Your task to perform on an android device: check the backup settings in the google photos Image 0: 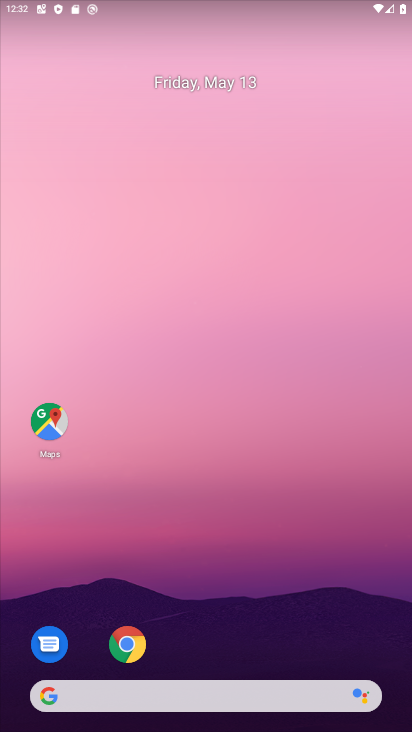
Step 0: drag from (279, 633) to (268, 81)
Your task to perform on an android device: check the backup settings in the google photos Image 1: 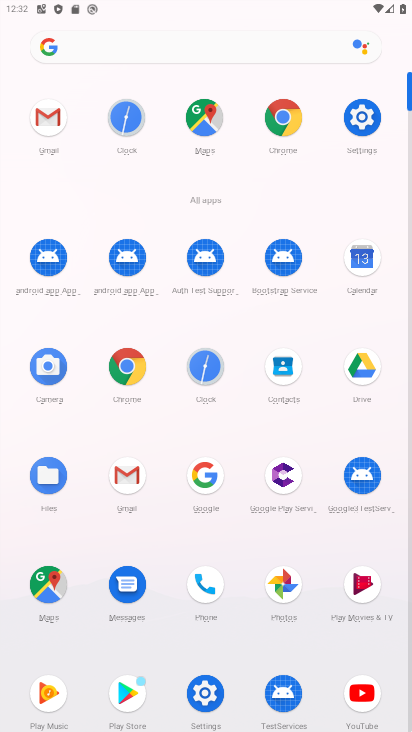
Step 1: click (286, 574)
Your task to perform on an android device: check the backup settings in the google photos Image 2: 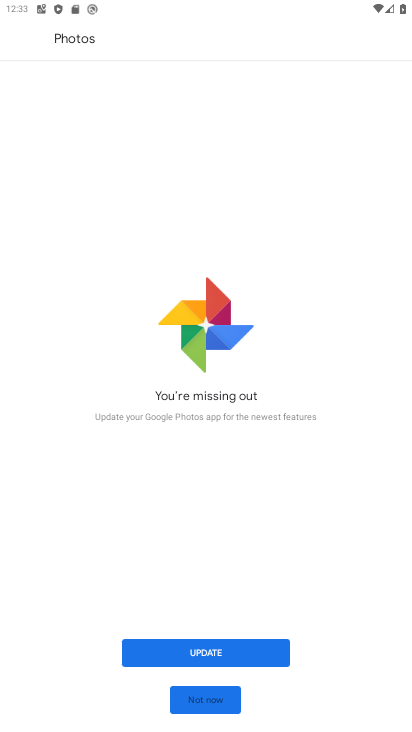
Step 2: click (217, 651)
Your task to perform on an android device: check the backup settings in the google photos Image 3: 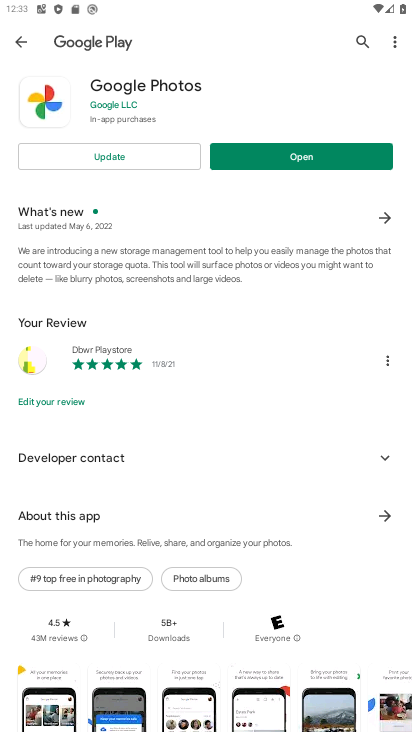
Step 3: click (265, 153)
Your task to perform on an android device: check the backup settings in the google photos Image 4: 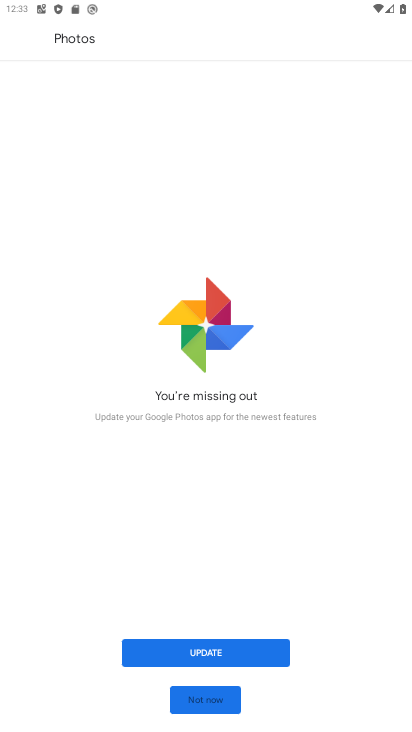
Step 4: click (202, 644)
Your task to perform on an android device: check the backup settings in the google photos Image 5: 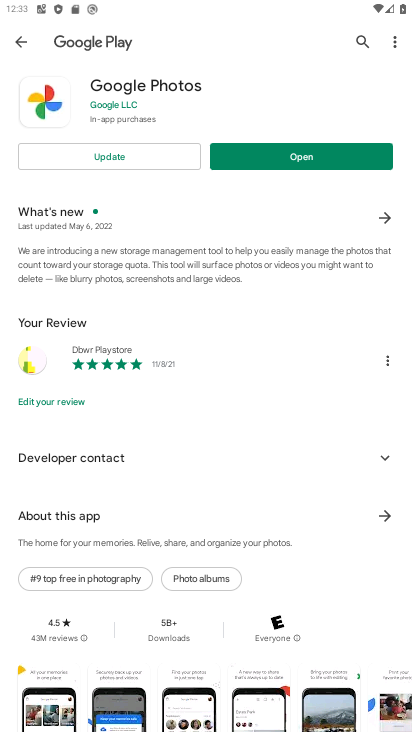
Step 5: click (155, 152)
Your task to perform on an android device: check the backup settings in the google photos Image 6: 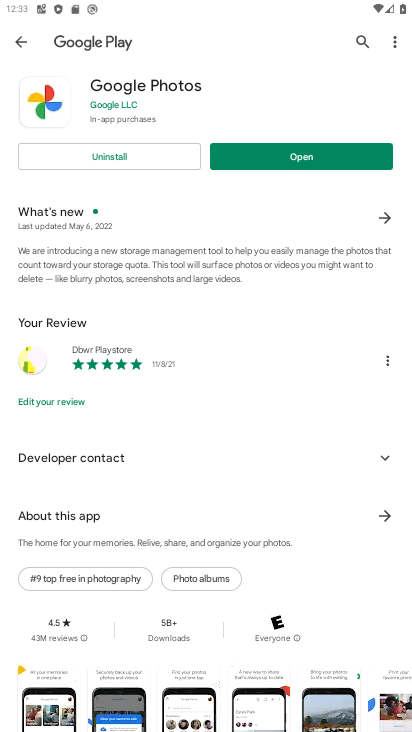
Step 6: click (262, 166)
Your task to perform on an android device: check the backup settings in the google photos Image 7: 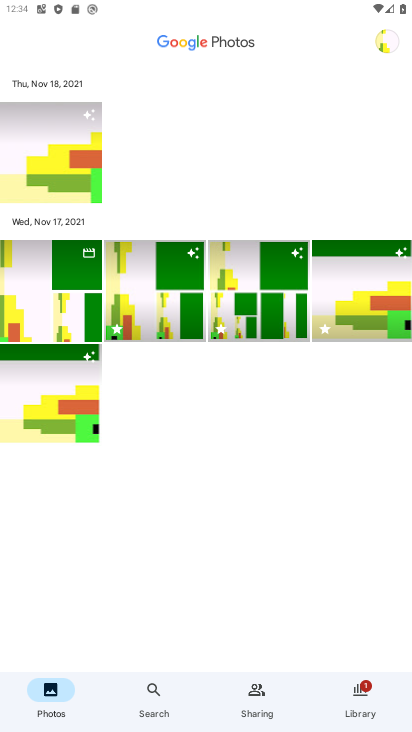
Step 7: click (384, 34)
Your task to perform on an android device: check the backup settings in the google photos Image 8: 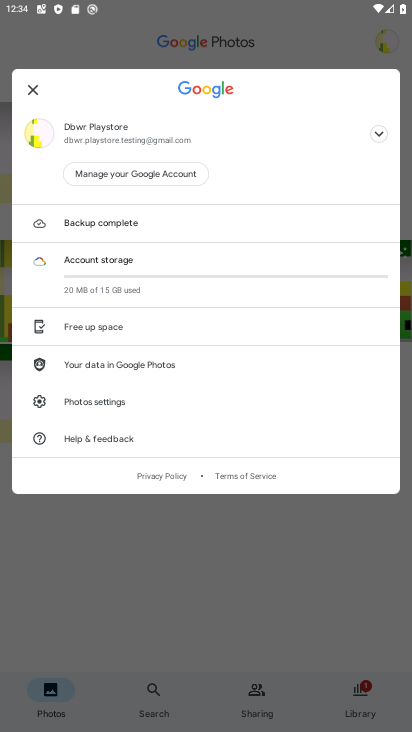
Step 8: click (111, 402)
Your task to perform on an android device: check the backup settings in the google photos Image 9: 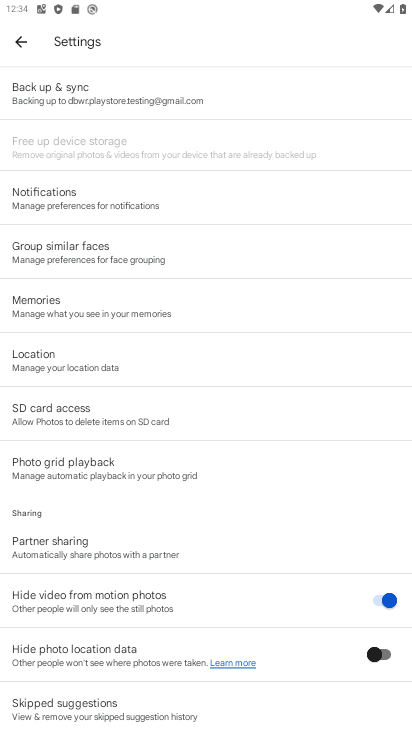
Step 9: click (152, 87)
Your task to perform on an android device: check the backup settings in the google photos Image 10: 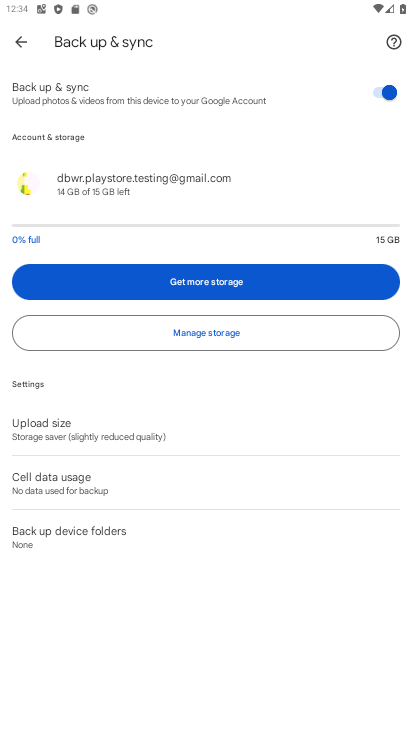
Step 10: task complete